Your task to perform on an android device: turn off improve location accuracy Image 0: 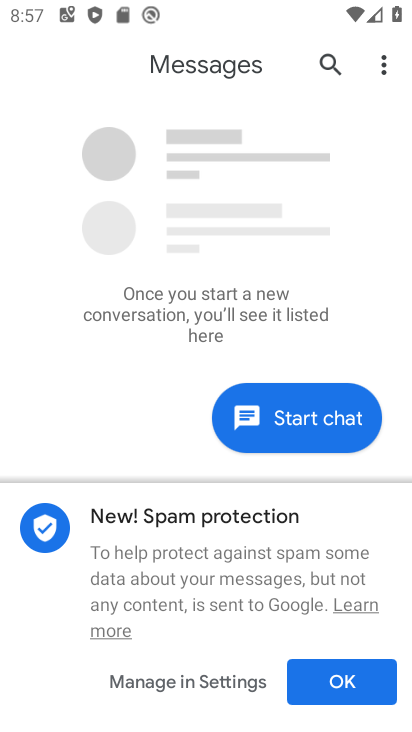
Step 0: press home button
Your task to perform on an android device: turn off improve location accuracy Image 1: 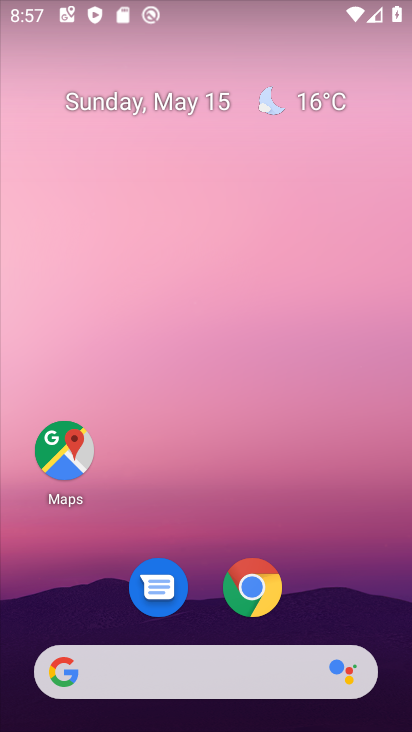
Step 1: drag from (342, 648) to (315, 249)
Your task to perform on an android device: turn off improve location accuracy Image 2: 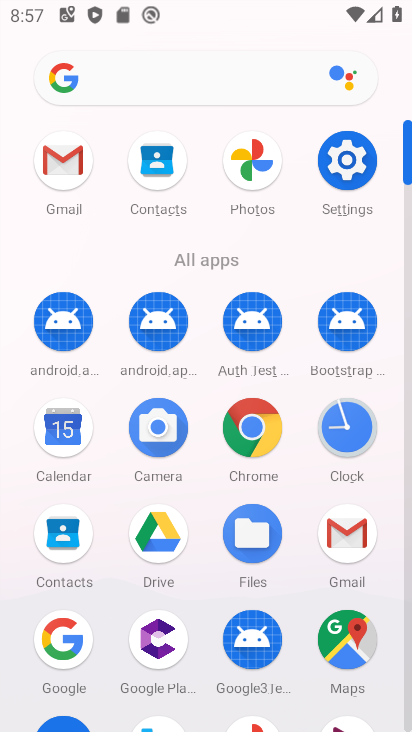
Step 2: click (348, 142)
Your task to perform on an android device: turn off improve location accuracy Image 3: 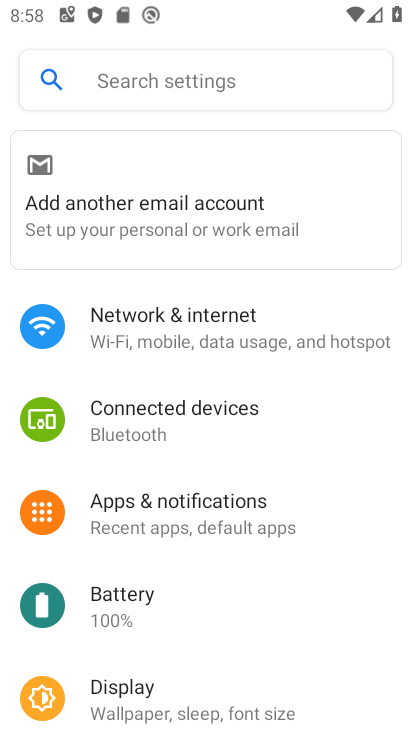
Step 3: drag from (194, 330) to (232, 57)
Your task to perform on an android device: turn off improve location accuracy Image 4: 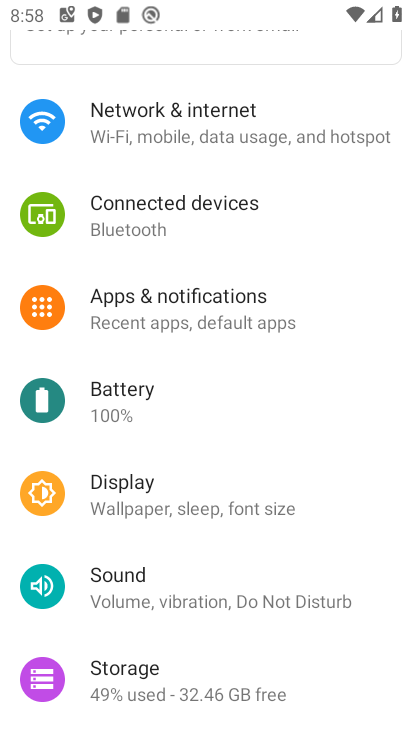
Step 4: drag from (209, 517) to (209, 187)
Your task to perform on an android device: turn off improve location accuracy Image 5: 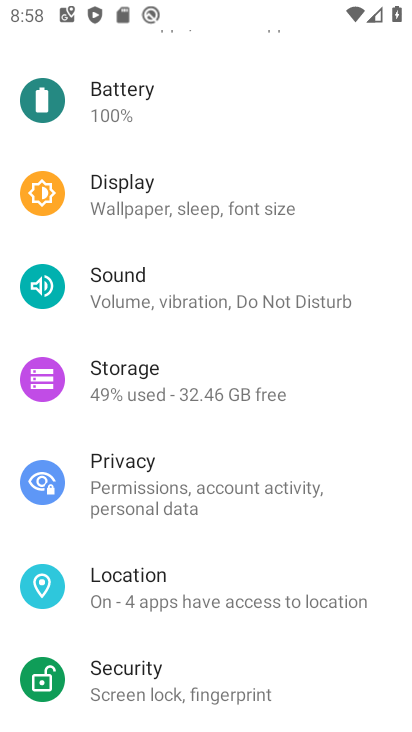
Step 5: drag from (213, 580) to (203, 220)
Your task to perform on an android device: turn off improve location accuracy Image 6: 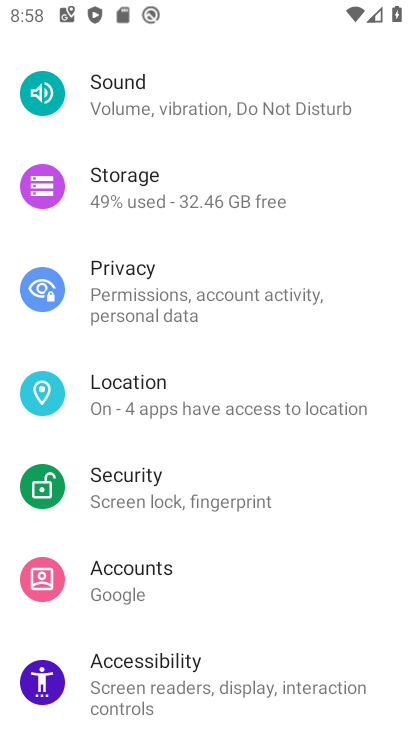
Step 6: drag from (205, 605) to (157, 80)
Your task to perform on an android device: turn off improve location accuracy Image 7: 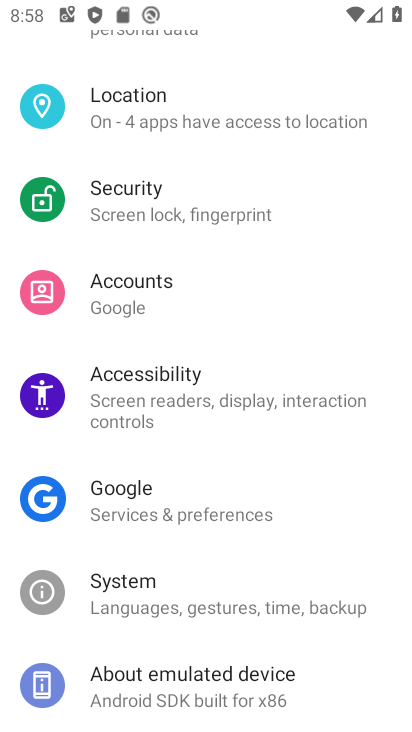
Step 7: drag from (237, 581) to (316, 654)
Your task to perform on an android device: turn off improve location accuracy Image 8: 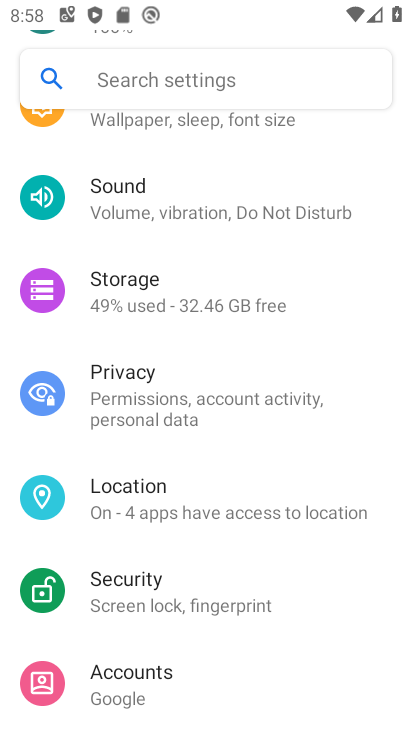
Step 8: drag from (178, 240) to (225, 672)
Your task to perform on an android device: turn off improve location accuracy Image 9: 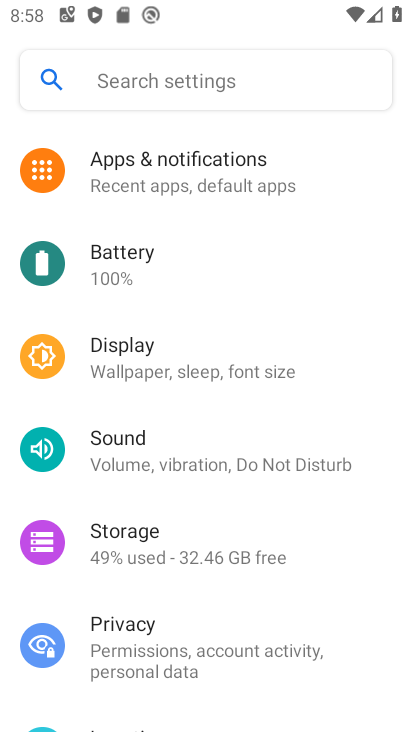
Step 9: drag from (216, 624) to (226, 235)
Your task to perform on an android device: turn off improve location accuracy Image 10: 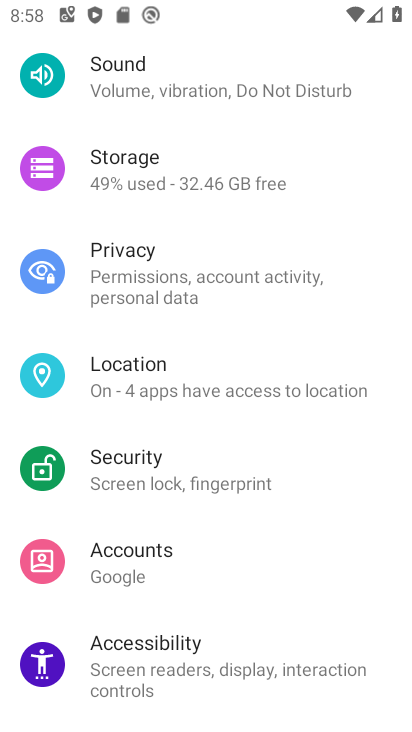
Step 10: click (148, 370)
Your task to perform on an android device: turn off improve location accuracy Image 11: 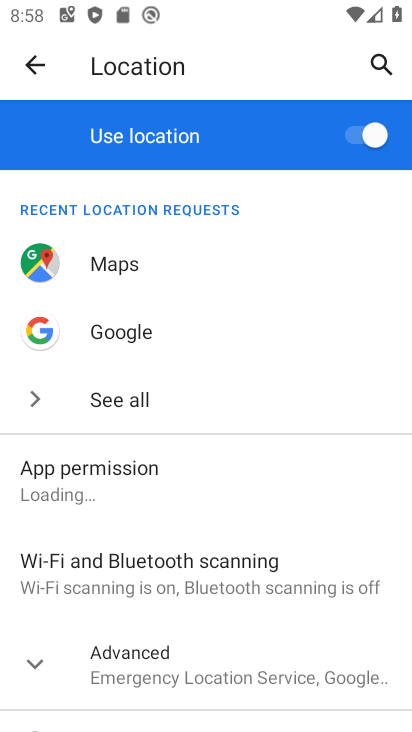
Step 11: drag from (263, 631) to (288, 211)
Your task to perform on an android device: turn off improve location accuracy Image 12: 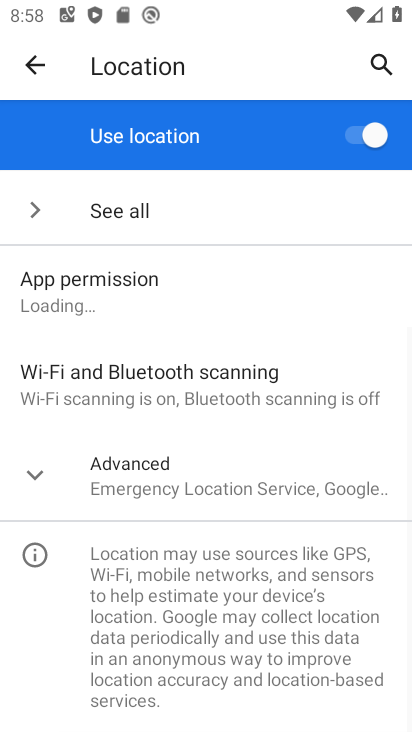
Step 12: click (155, 479)
Your task to perform on an android device: turn off improve location accuracy Image 13: 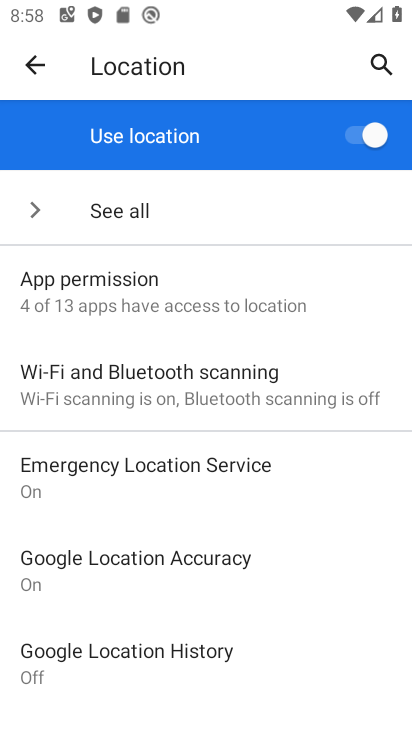
Step 13: click (159, 557)
Your task to perform on an android device: turn off improve location accuracy Image 14: 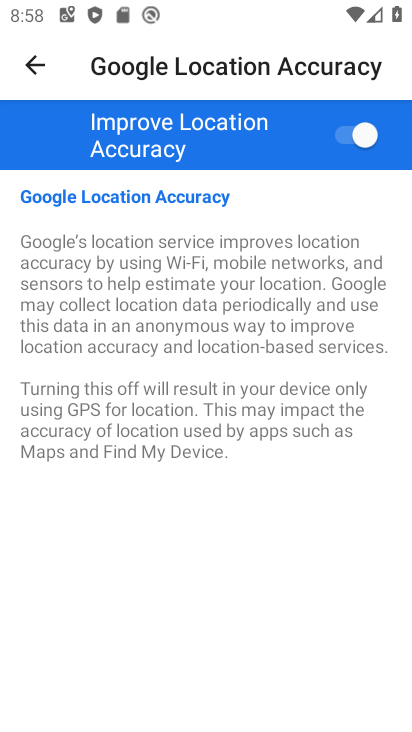
Step 14: click (358, 140)
Your task to perform on an android device: turn off improve location accuracy Image 15: 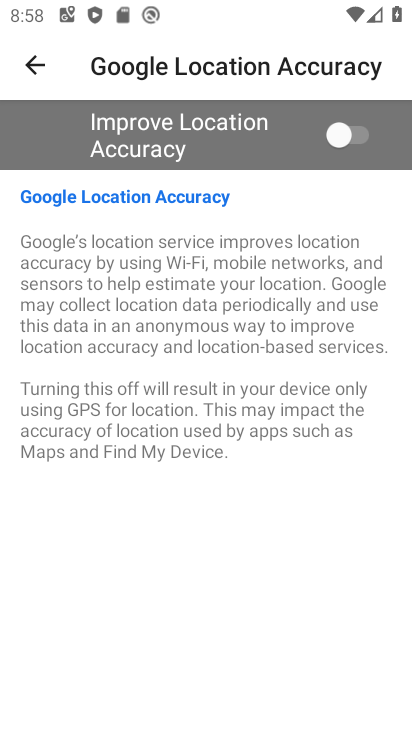
Step 15: task complete